Your task to perform on an android device: all mails in gmail Image 0: 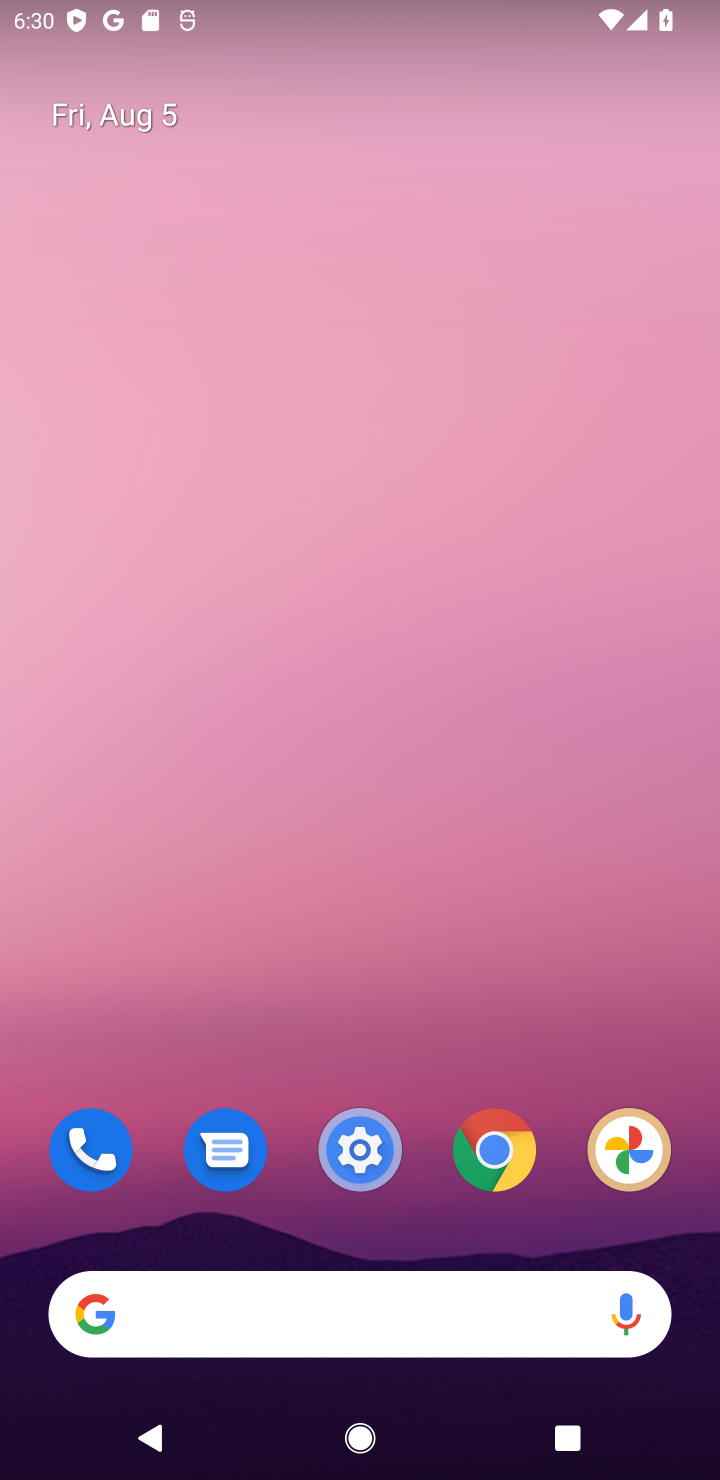
Step 0: drag from (432, 964) to (384, 197)
Your task to perform on an android device: all mails in gmail Image 1: 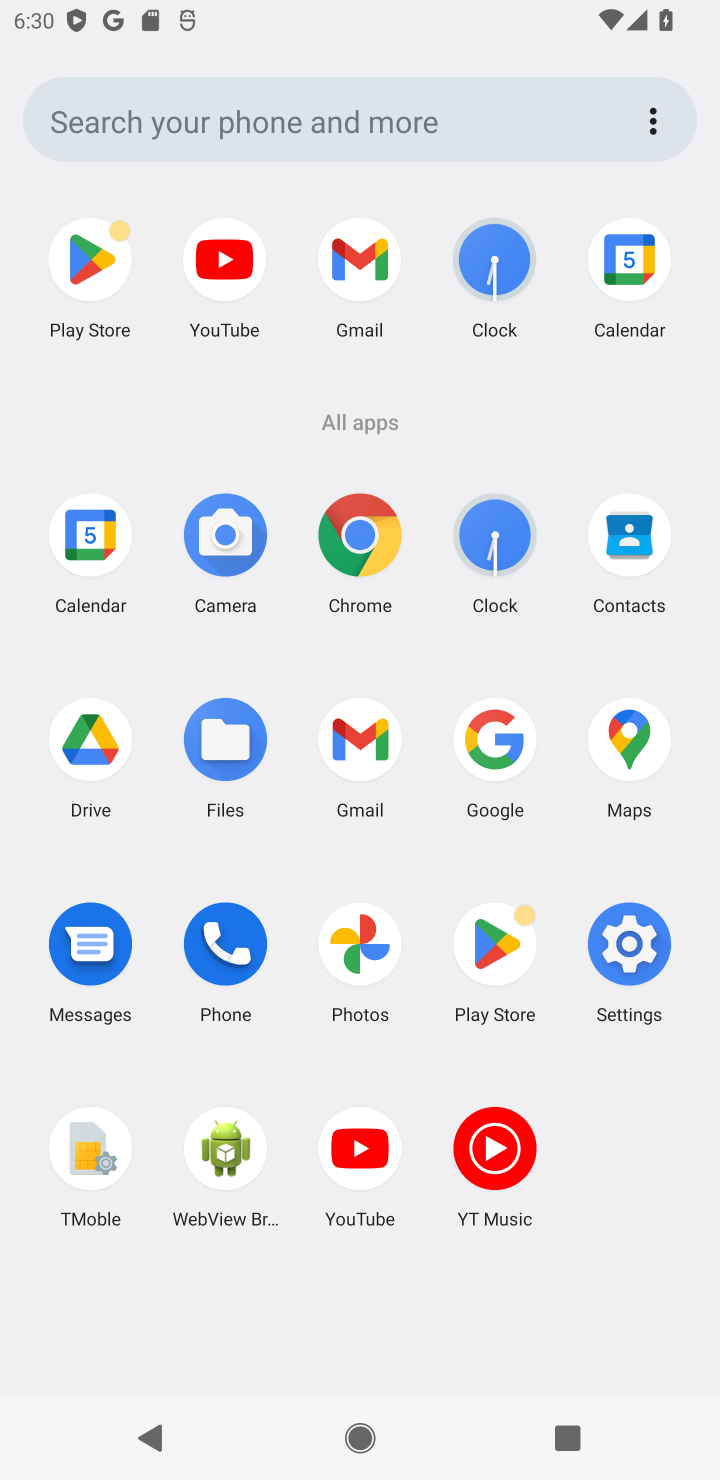
Step 1: click (388, 762)
Your task to perform on an android device: all mails in gmail Image 2: 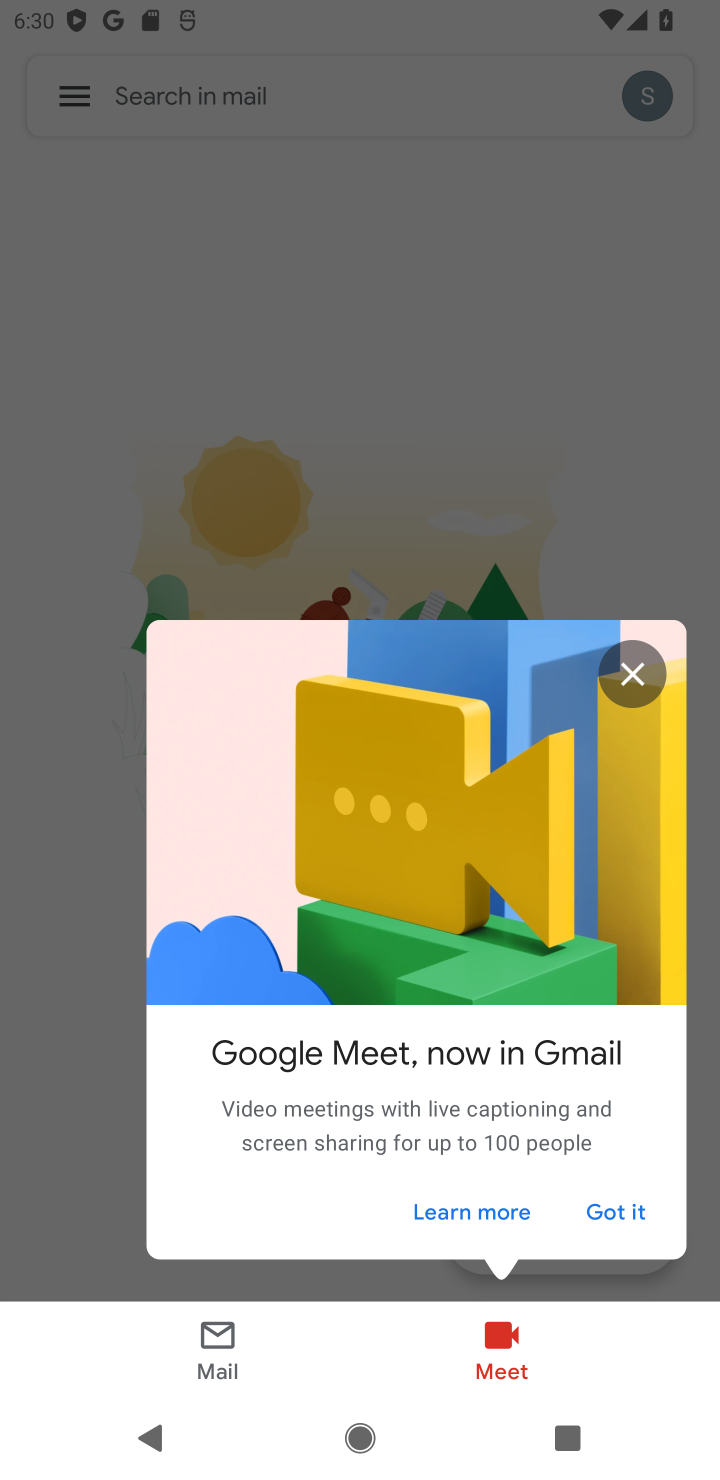
Step 2: click (628, 1189)
Your task to perform on an android device: all mails in gmail Image 3: 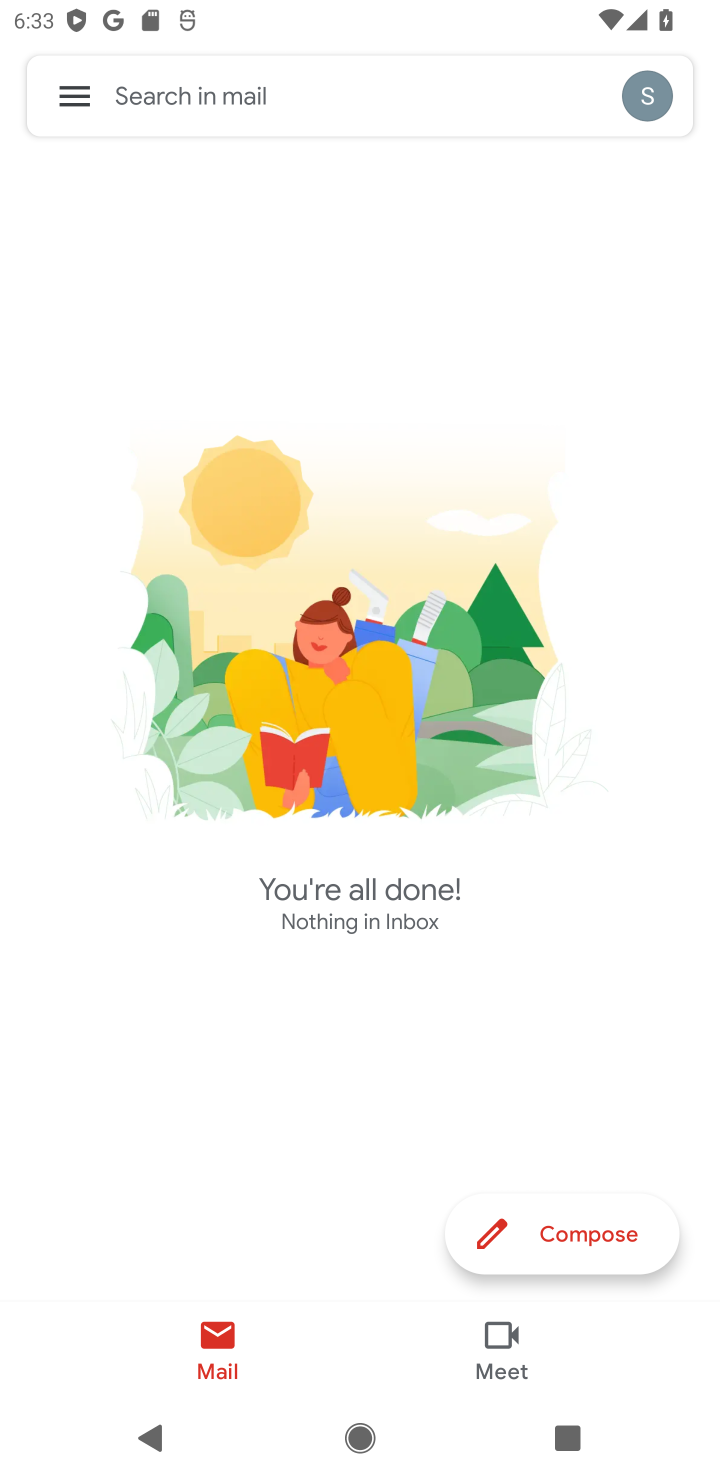
Step 3: click (70, 94)
Your task to perform on an android device: all mails in gmail Image 4: 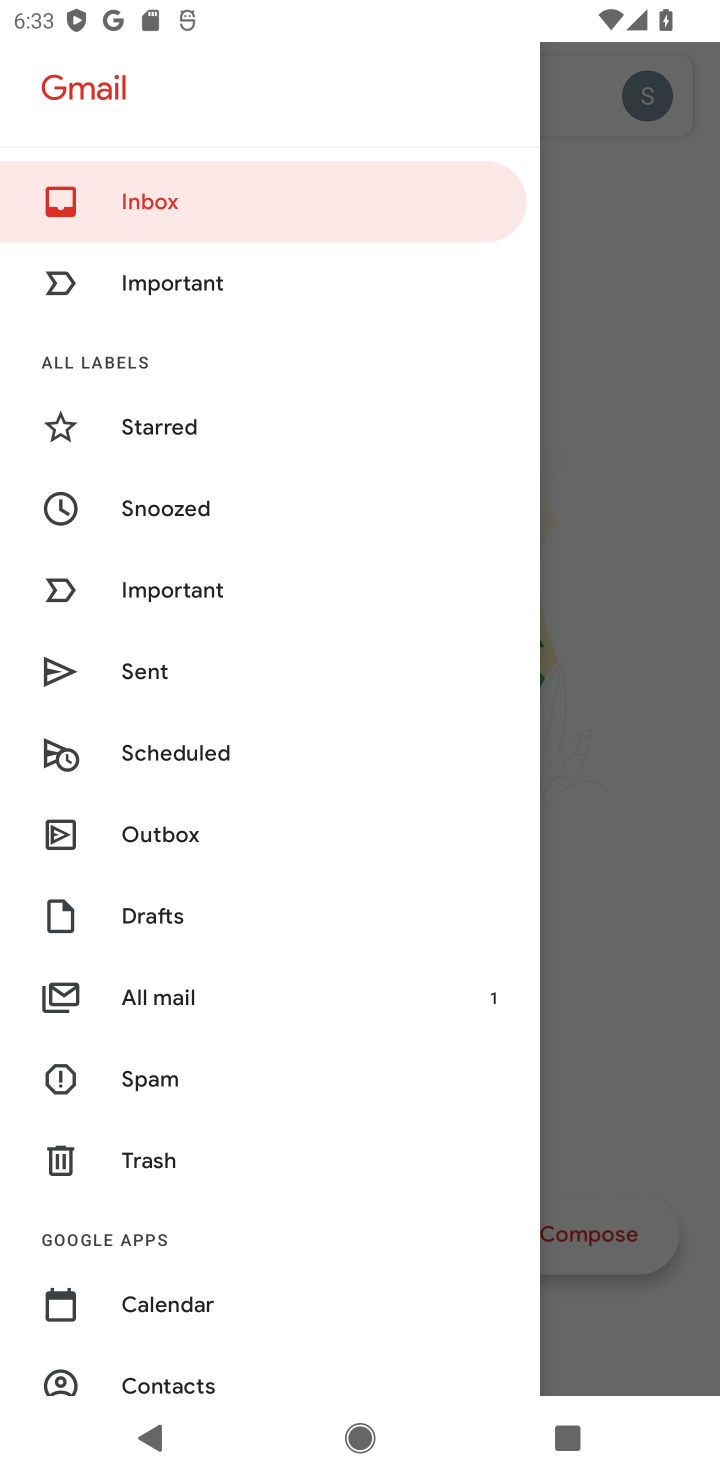
Step 4: click (157, 995)
Your task to perform on an android device: all mails in gmail Image 5: 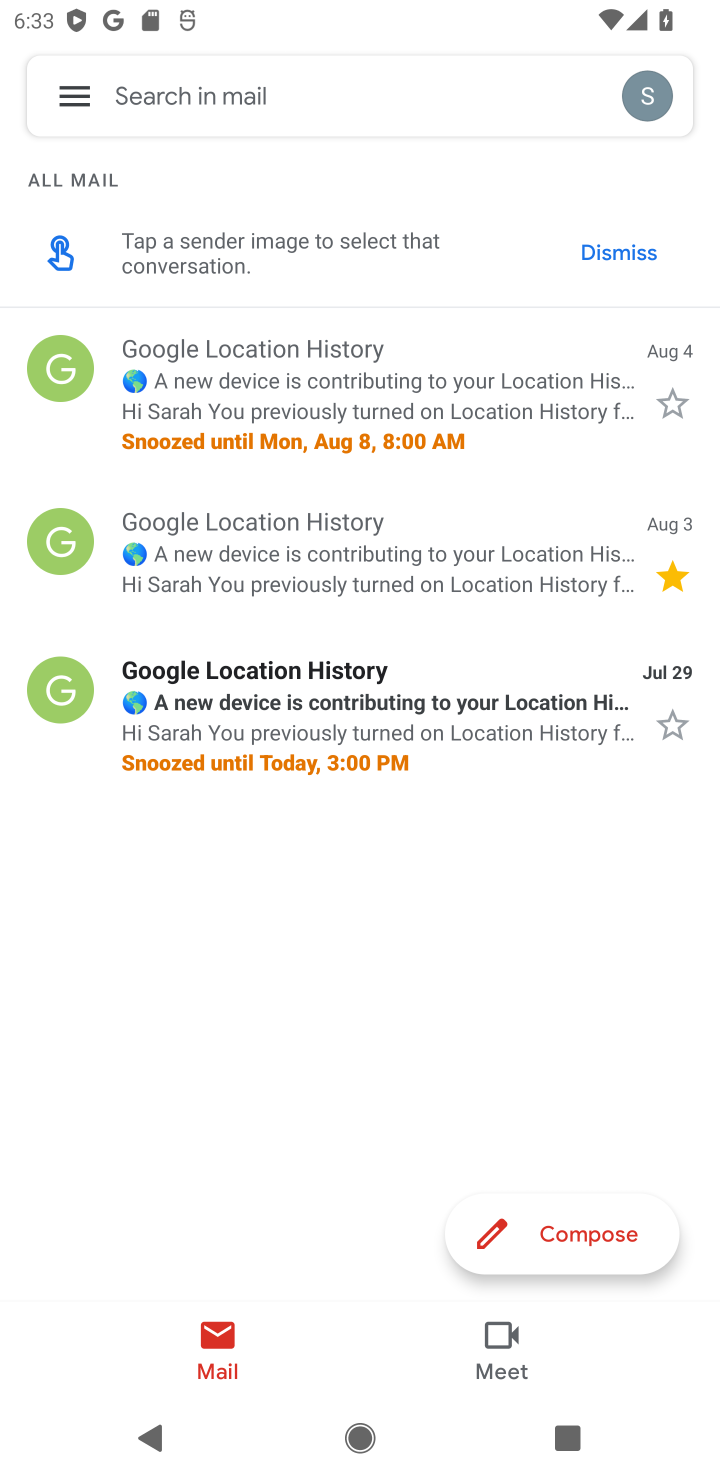
Step 5: task complete